Your task to perform on an android device: toggle data saver in the chrome app Image 0: 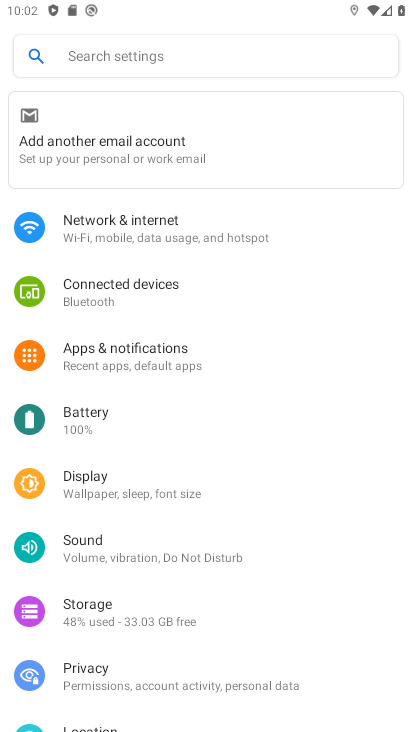
Step 0: press back button
Your task to perform on an android device: toggle data saver in the chrome app Image 1: 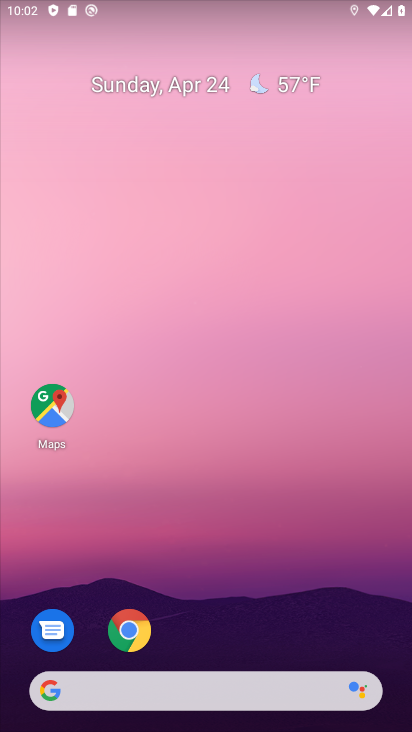
Step 1: click (126, 632)
Your task to perform on an android device: toggle data saver in the chrome app Image 2: 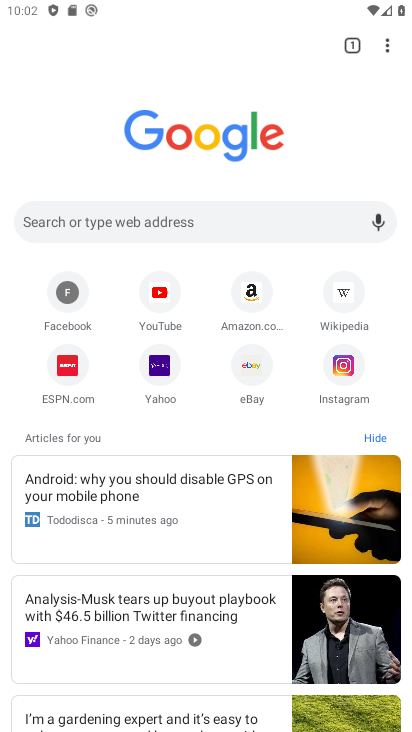
Step 2: click (385, 43)
Your task to perform on an android device: toggle data saver in the chrome app Image 3: 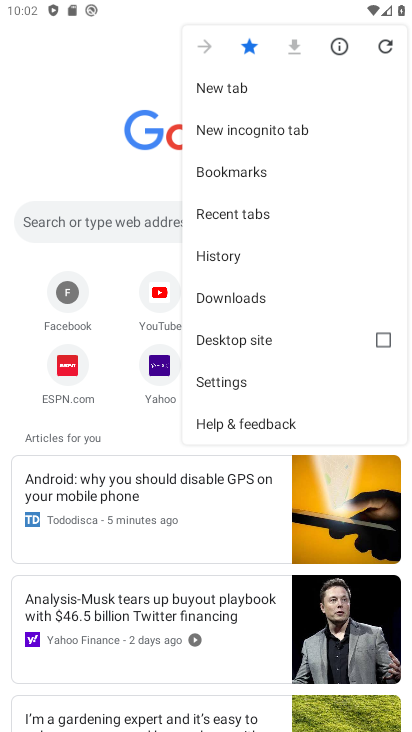
Step 3: click (209, 384)
Your task to perform on an android device: toggle data saver in the chrome app Image 4: 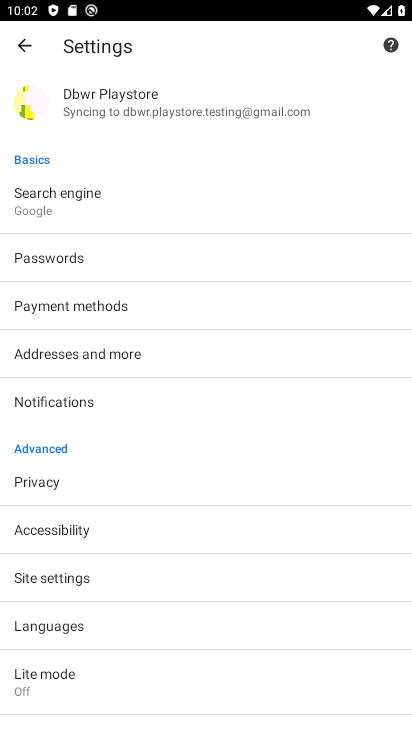
Step 4: click (49, 676)
Your task to perform on an android device: toggle data saver in the chrome app Image 5: 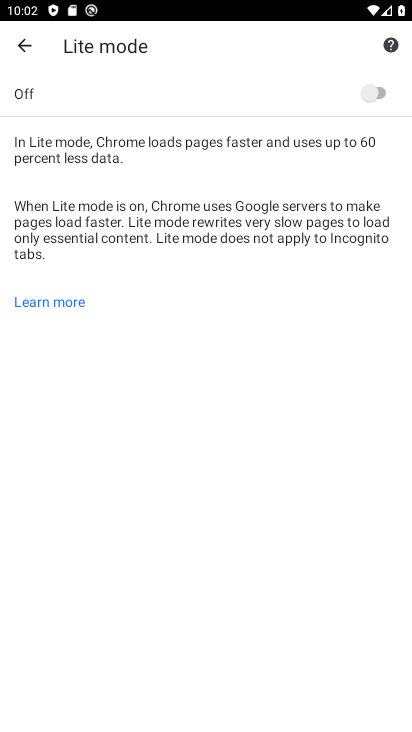
Step 5: click (371, 88)
Your task to perform on an android device: toggle data saver in the chrome app Image 6: 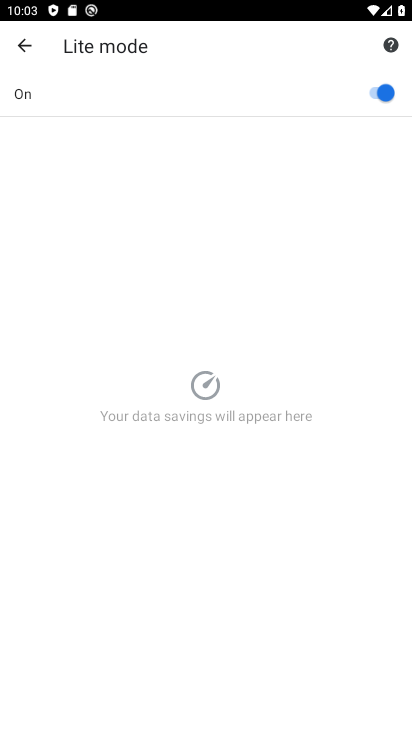
Step 6: task complete